Your task to perform on an android device: Open calendar and show me the first week of next month Image 0: 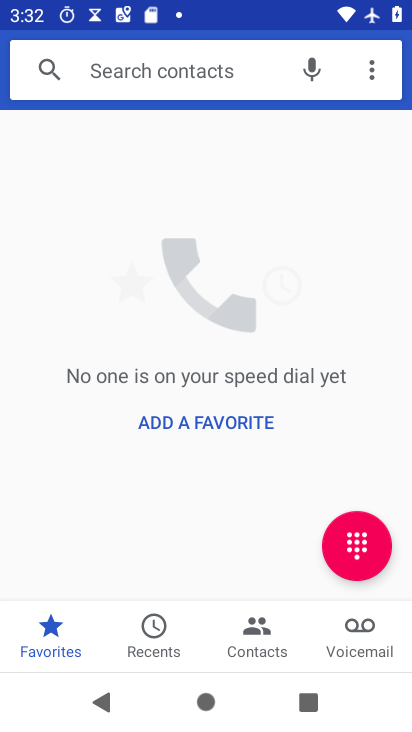
Step 0: press home button
Your task to perform on an android device: Open calendar and show me the first week of next month Image 1: 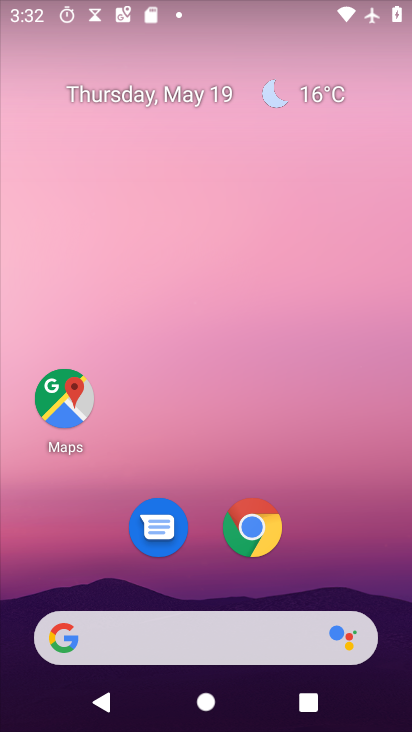
Step 1: drag from (327, 537) to (221, 52)
Your task to perform on an android device: Open calendar and show me the first week of next month Image 2: 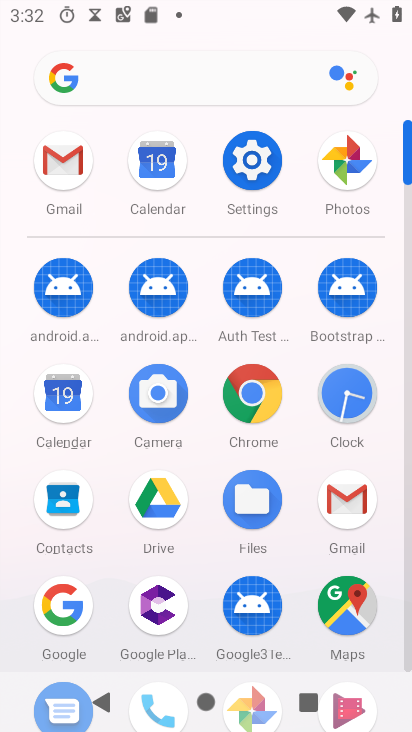
Step 2: click (160, 172)
Your task to perform on an android device: Open calendar and show me the first week of next month Image 3: 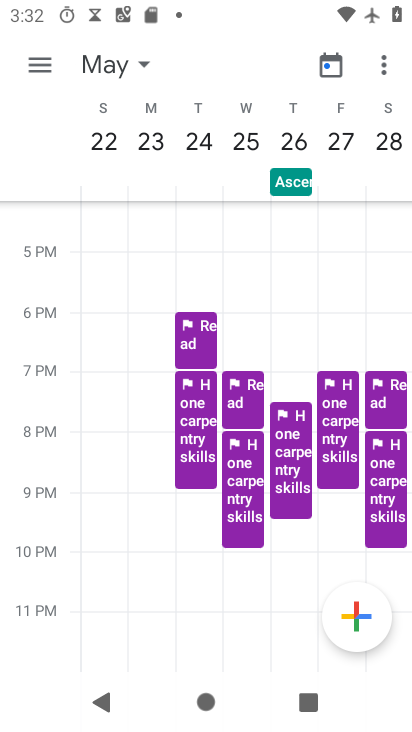
Step 3: click (142, 62)
Your task to perform on an android device: Open calendar and show me the first week of next month Image 4: 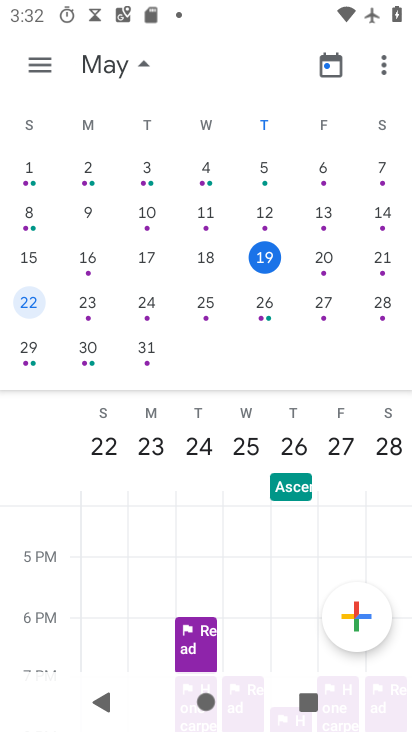
Step 4: task complete